Your task to perform on an android device: turn off priority inbox in the gmail app Image 0: 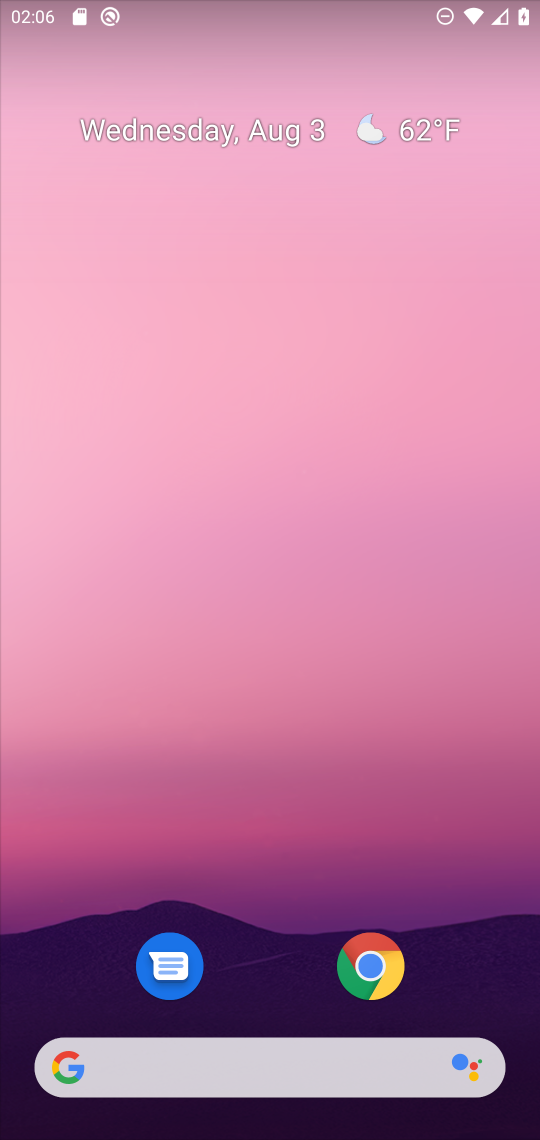
Step 0: drag from (253, 975) to (267, 374)
Your task to perform on an android device: turn off priority inbox in the gmail app Image 1: 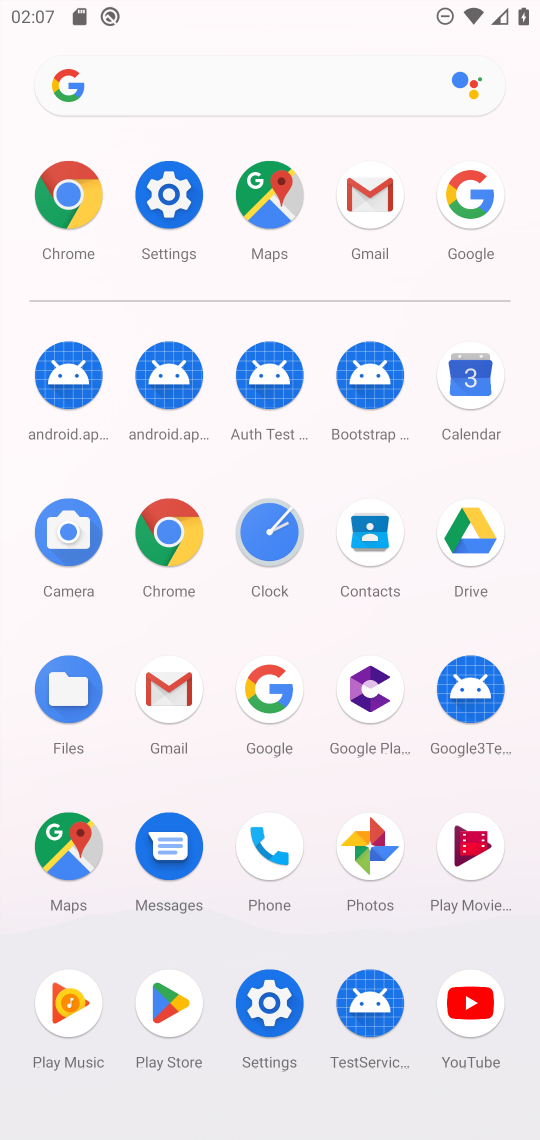
Step 1: click (384, 212)
Your task to perform on an android device: turn off priority inbox in the gmail app Image 2: 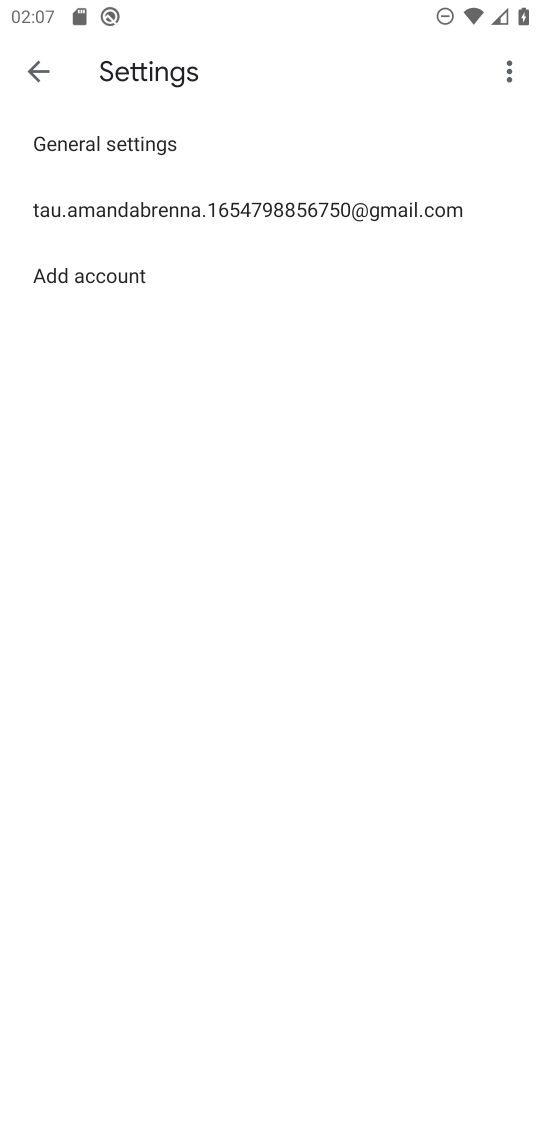
Step 2: click (38, 86)
Your task to perform on an android device: turn off priority inbox in the gmail app Image 3: 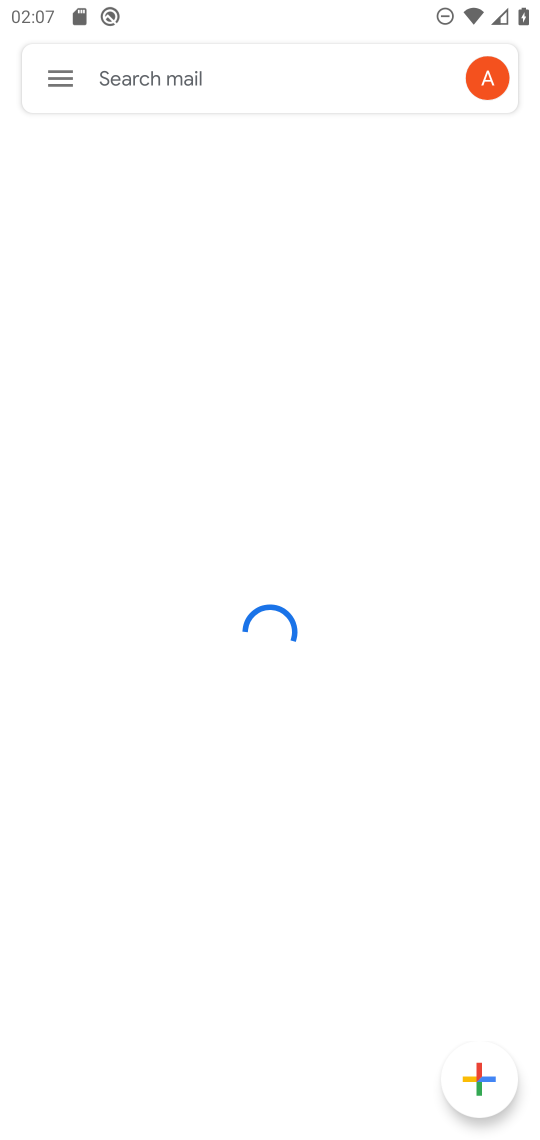
Step 3: click (65, 66)
Your task to perform on an android device: turn off priority inbox in the gmail app Image 4: 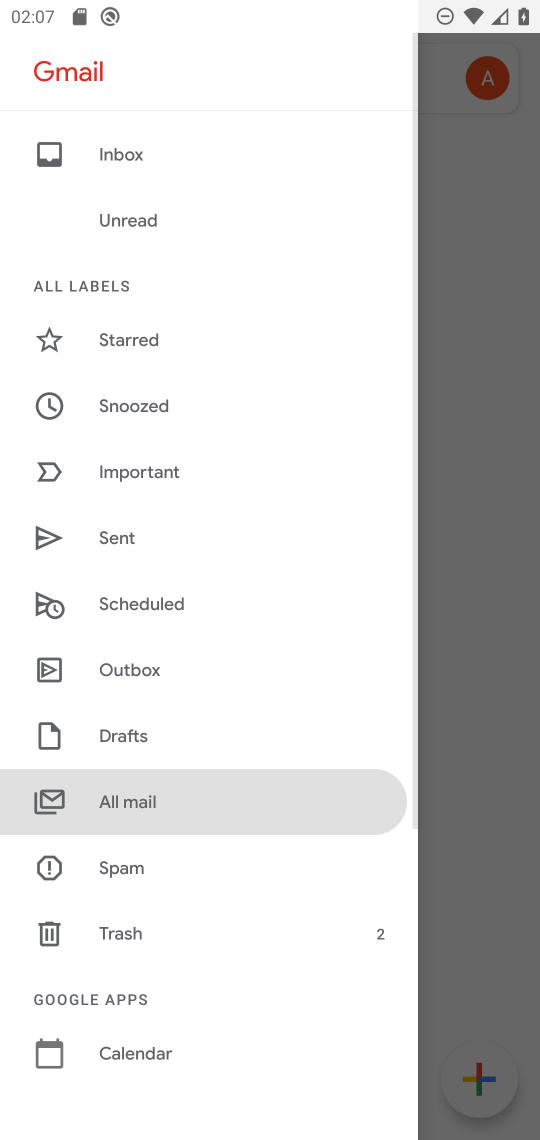
Step 4: drag from (181, 1007) to (206, 523)
Your task to perform on an android device: turn off priority inbox in the gmail app Image 5: 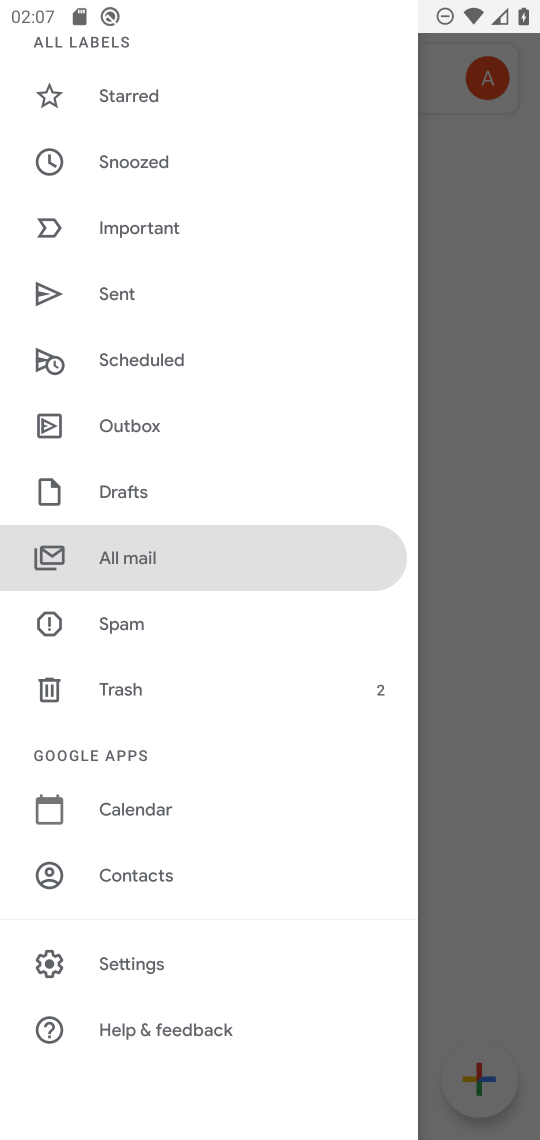
Step 5: click (153, 970)
Your task to perform on an android device: turn off priority inbox in the gmail app Image 6: 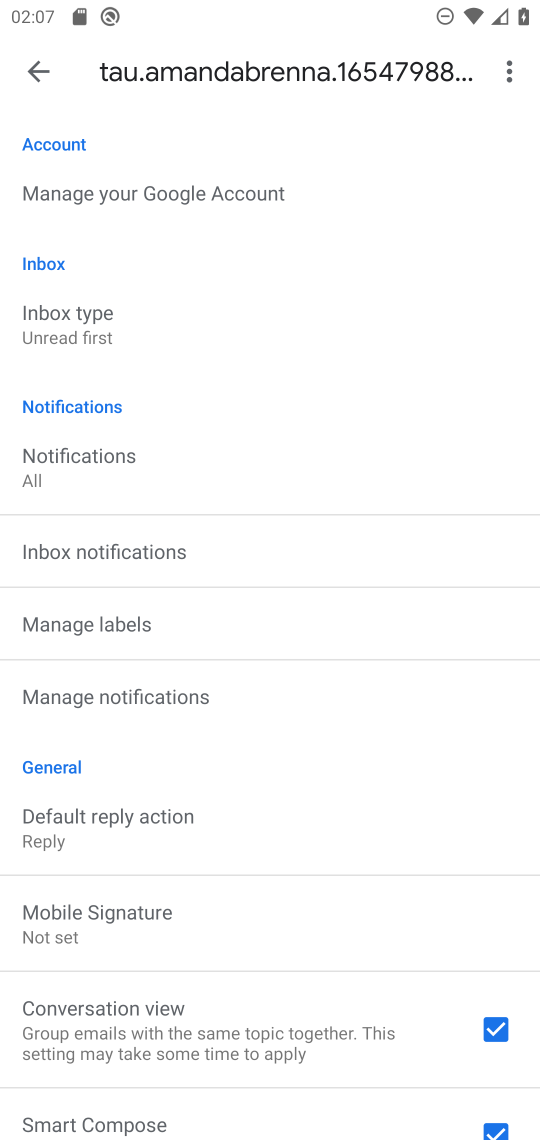
Step 6: click (109, 345)
Your task to perform on an android device: turn off priority inbox in the gmail app Image 7: 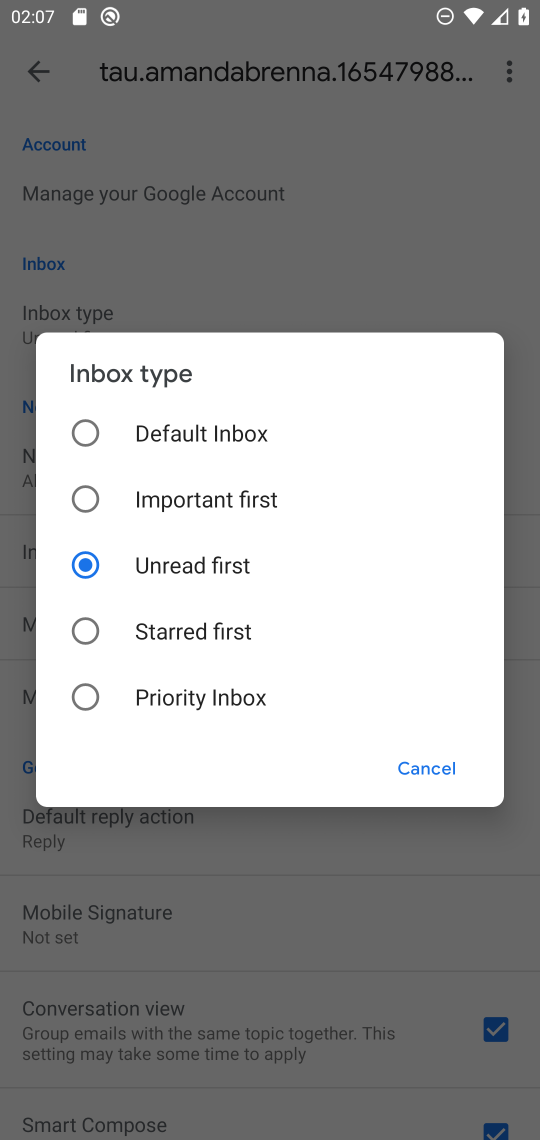
Step 7: click (177, 428)
Your task to perform on an android device: turn off priority inbox in the gmail app Image 8: 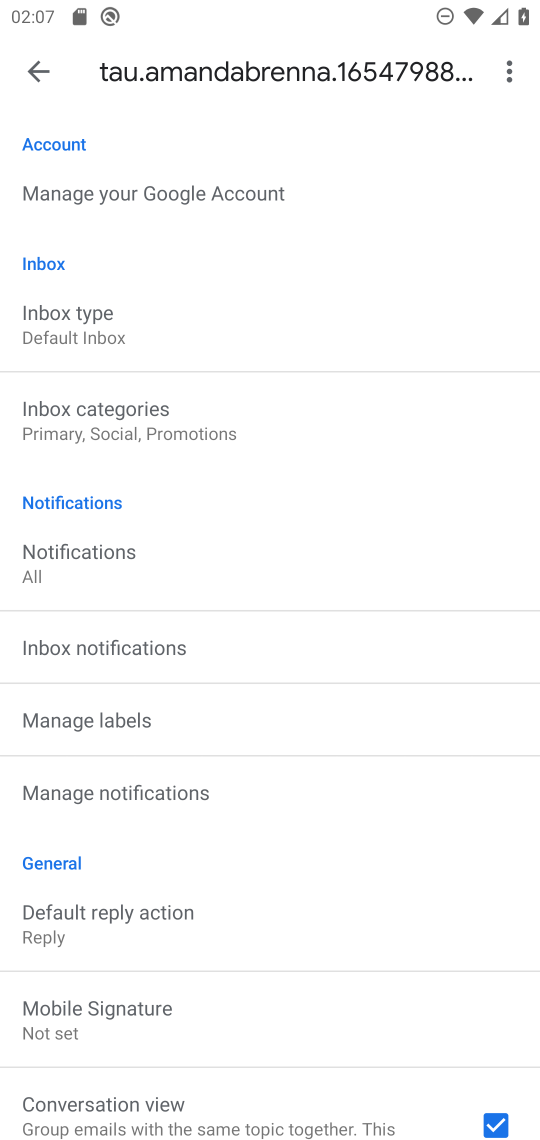
Step 8: task complete